Your task to perform on an android device: Play the last video I watched on Youtube Image 0: 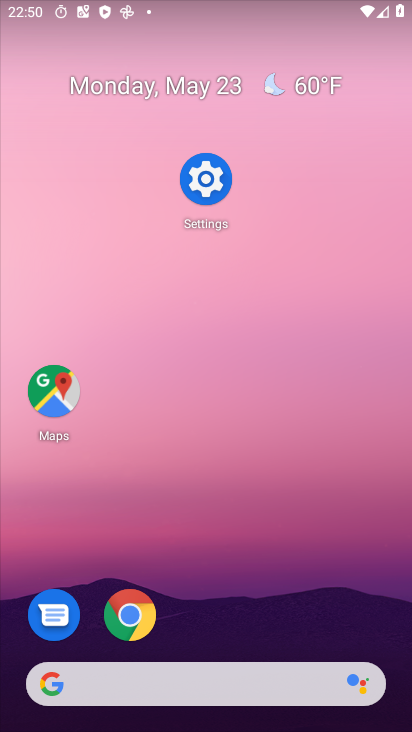
Step 0: drag from (254, 583) to (301, 49)
Your task to perform on an android device: Play the last video I watched on Youtube Image 1: 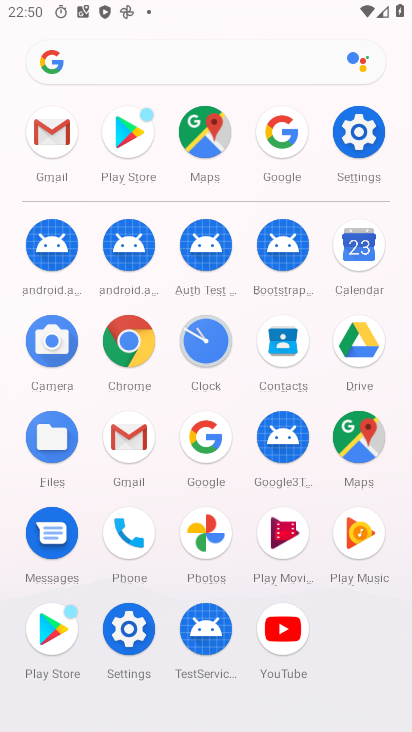
Step 1: click (291, 631)
Your task to perform on an android device: Play the last video I watched on Youtube Image 2: 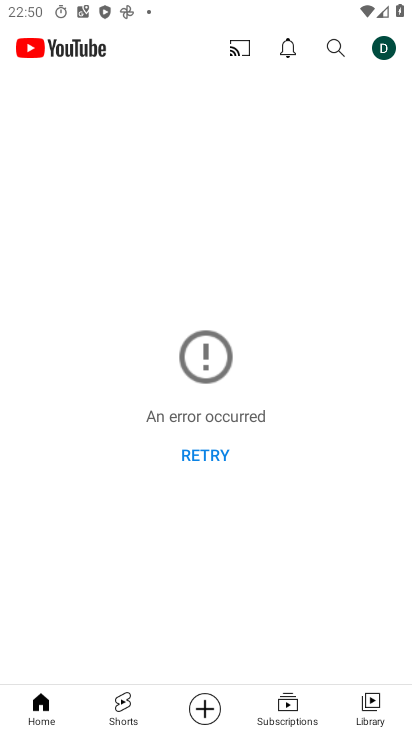
Step 2: click (334, 53)
Your task to perform on an android device: Play the last video I watched on Youtube Image 3: 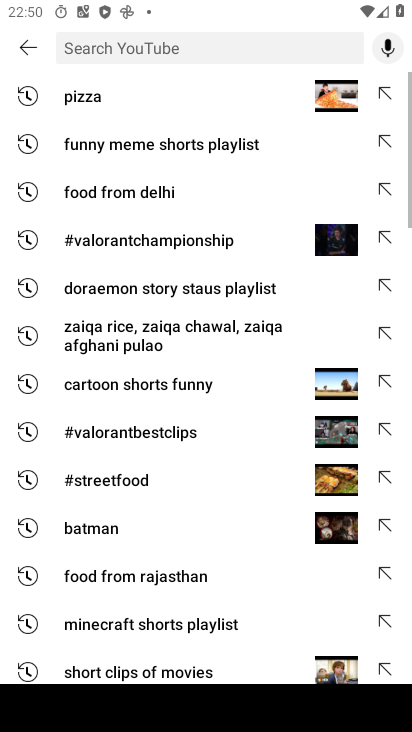
Step 3: click (110, 104)
Your task to perform on an android device: Play the last video I watched on Youtube Image 4: 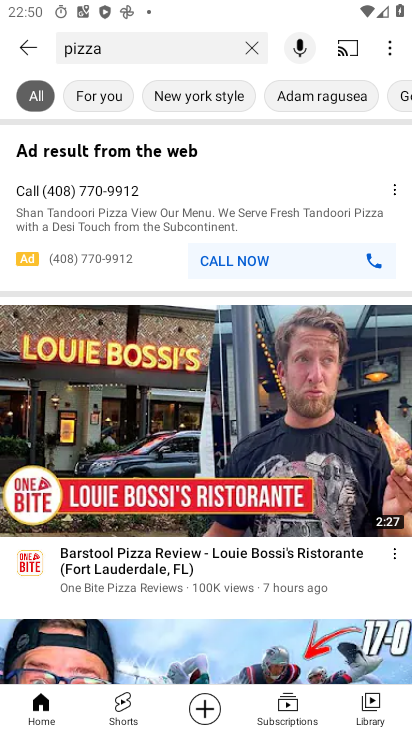
Step 4: click (221, 406)
Your task to perform on an android device: Play the last video I watched on Youtube Image 5: 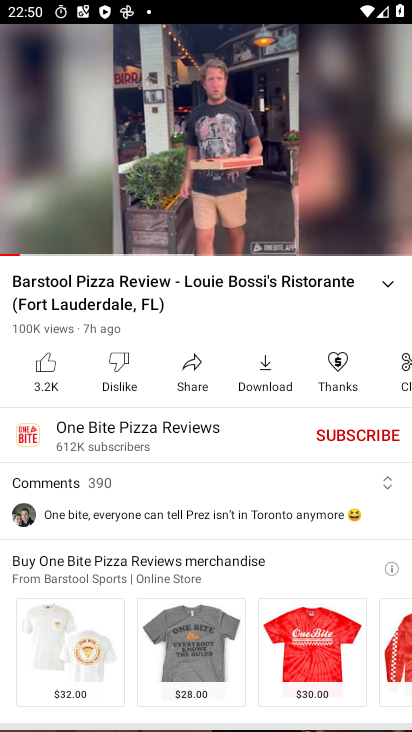
Step 5: click (221, 189)
Your task to perform on an android device: Play the last video I watched on Youtube Image 6: 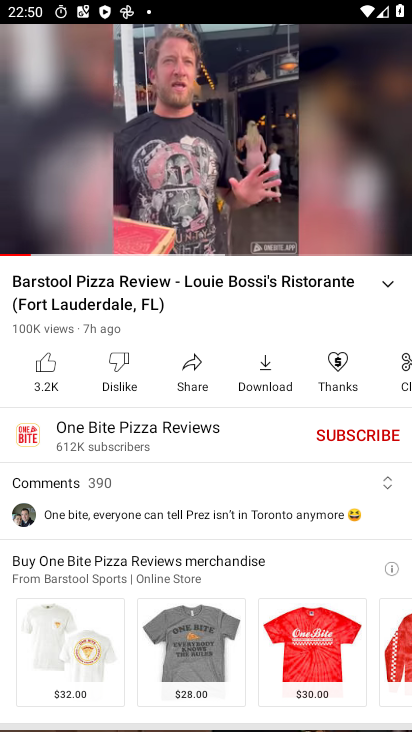
Step 6: task complete